Your task to perform on an android device: snooze an email in the gmail app Image 0: 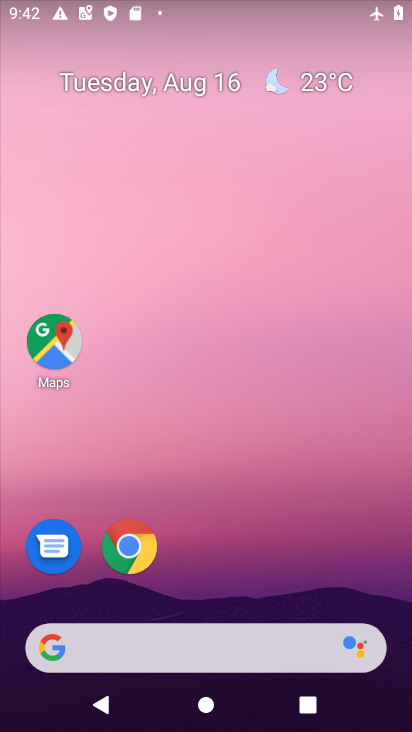
Step 0: drag from (247, 558) to (270, 0)
Your task to perform on an android device: snooze an email in the gmail app Image 1: 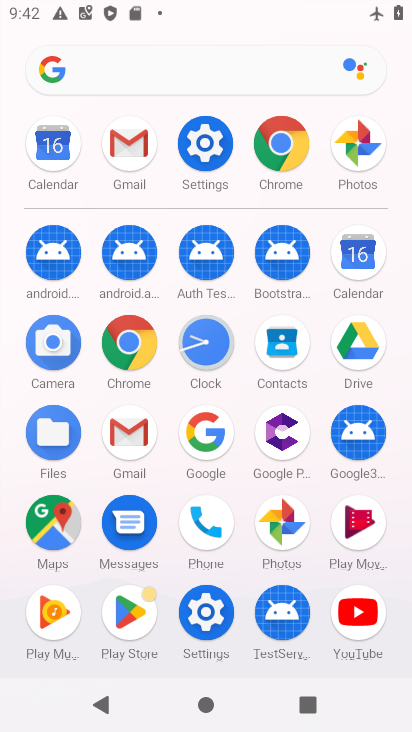
Step 1: click (136, 141)
Your task to perform on an android device: snooze an email in the gmail app Image 2: 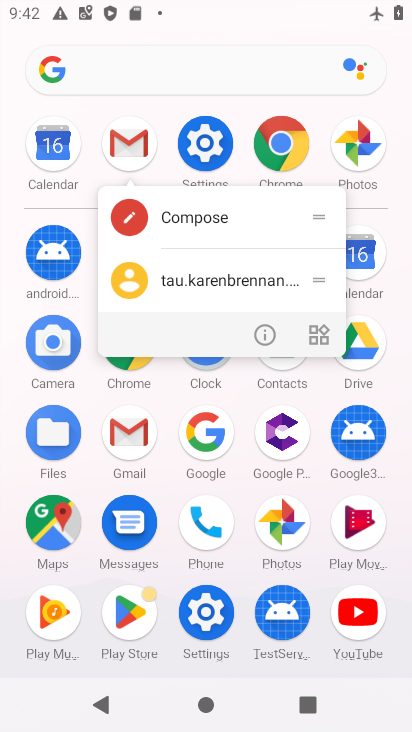
Step 2: click (136, 142)
Your task to perform on an android device: snooze an email in the gmail app Image 3: 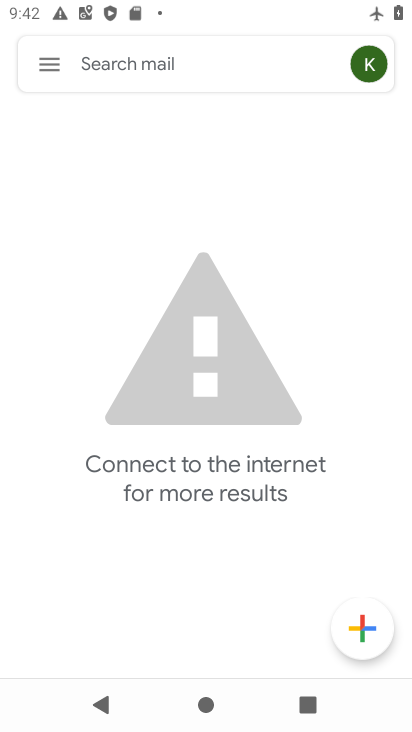
Step 3: click (51, 61)
Your task to perform on an android device: snooze an email in the gmail app Image 4: 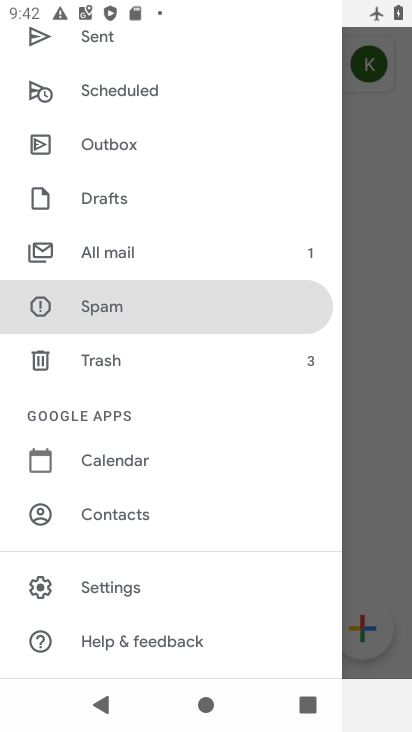
Step 4: click (123, 248)
Your task to perform on an android device: snooze an email in the gmail app Image 5: 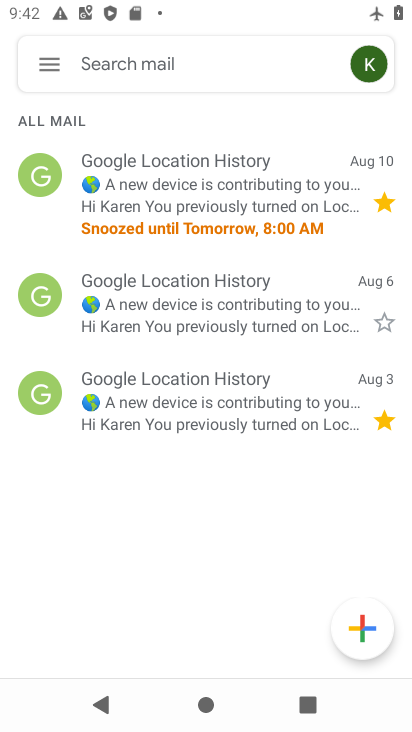
Step 5: click (172, 308)
Your task to perform on an android device: snooze an email in the gmail app Image 6: 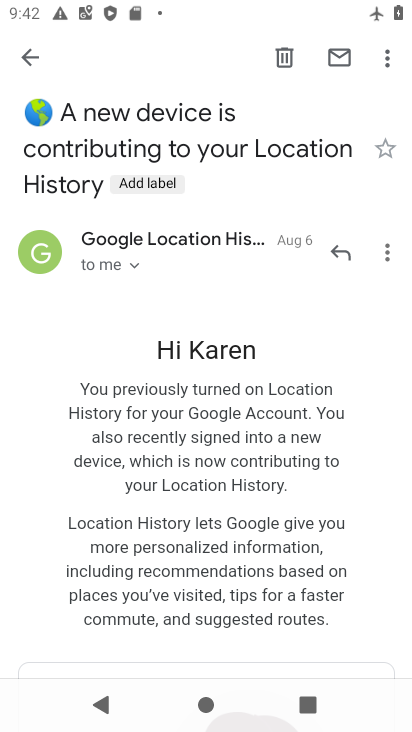
Step 6: click (384, 55)
Your task to perform on an android device: snooze an email in the gmail app Image 7: 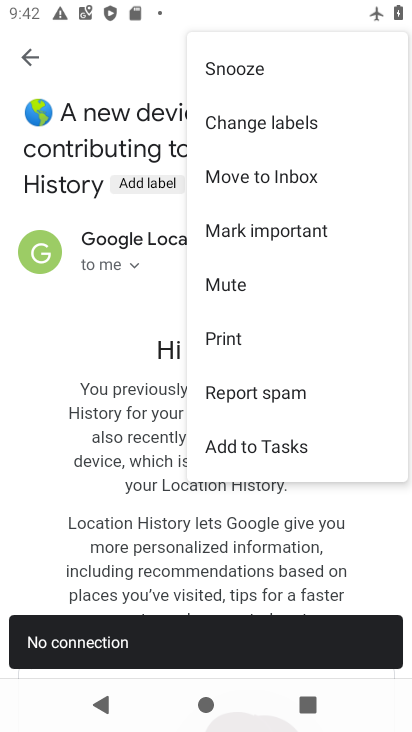
Step 7: click (310, 65)
Your task to perform on an android device: snooze an email in the gmail app Image 8: 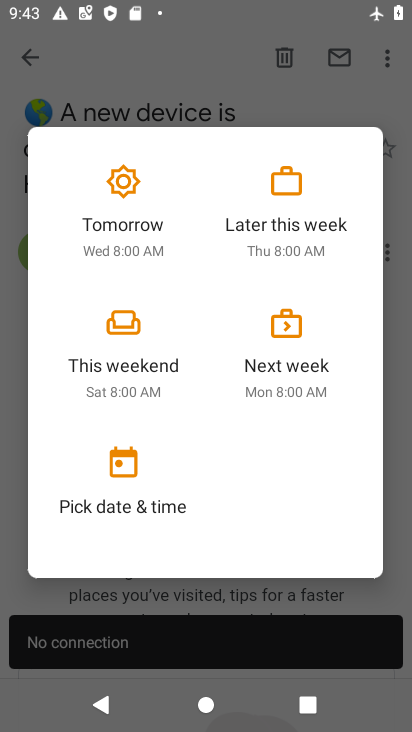
Step 8: click (139, 222)
Your task to perform on an android device: snooze an email in the gmail app Image 9: 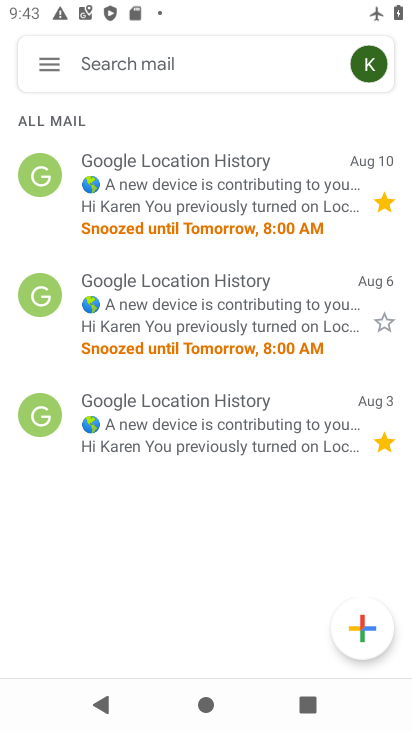
Step 9: task complete